Your task to perform on an android device: open sync settings in chrome Image 0: 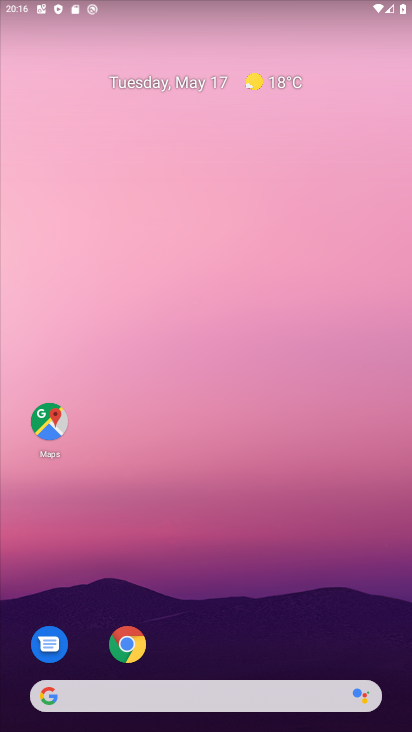
Step 0: click (122, 630)
Your task to perform on an android device: open sync settings in chrome Image 1: 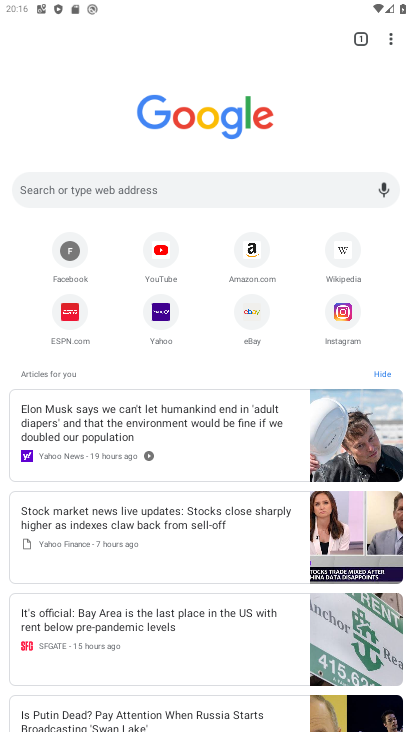
Step 1: drag from (386, 39) to (258, 327)
Your task to perform on an android device: open sync settings in chrome Image 2: 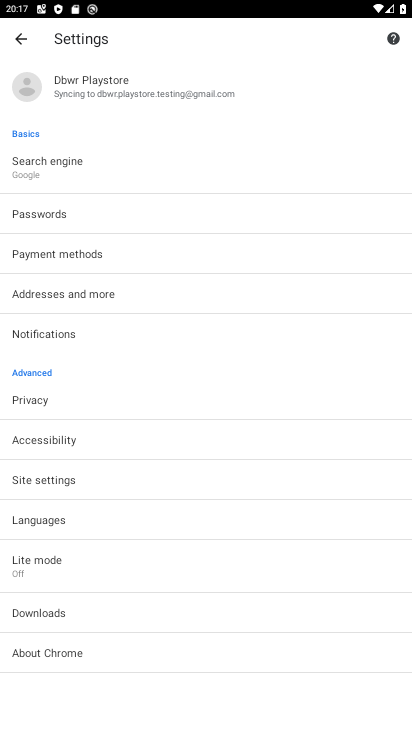
Step 2: click (126, 79)
Your task to perform on an android device: open sync settings in chrome Image 3: 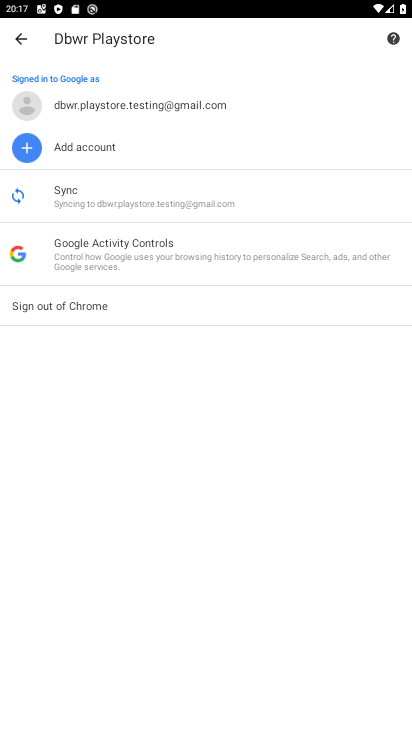
Step 3: task complete